Your task to perform on an android device: turn on the 24-hour format for clock Image 0: 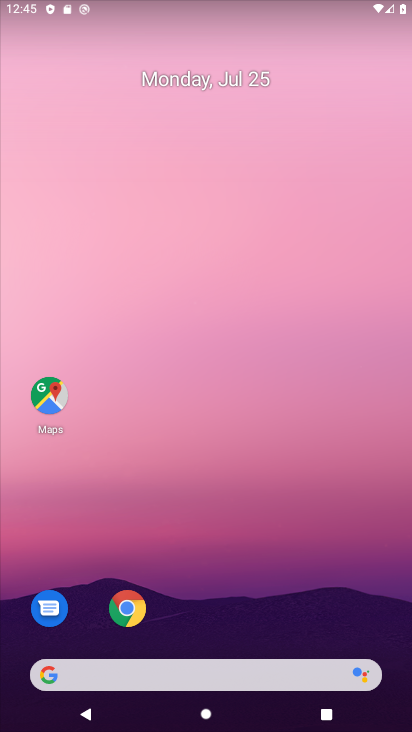
Step 0: drag from (200, 658) to (117, 66)
Your task to perform on an android device: turn on the 24-hour format for clock Image 1: 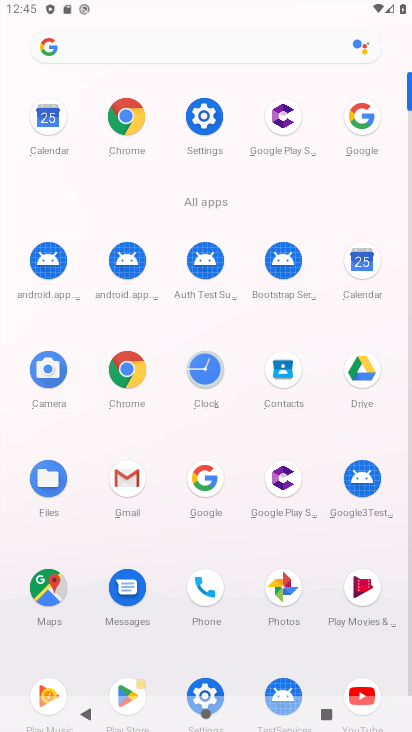
Step 1: click (205, 350)
Your task to perform on an android device: turn on the 24-hour format for clock Image 2: 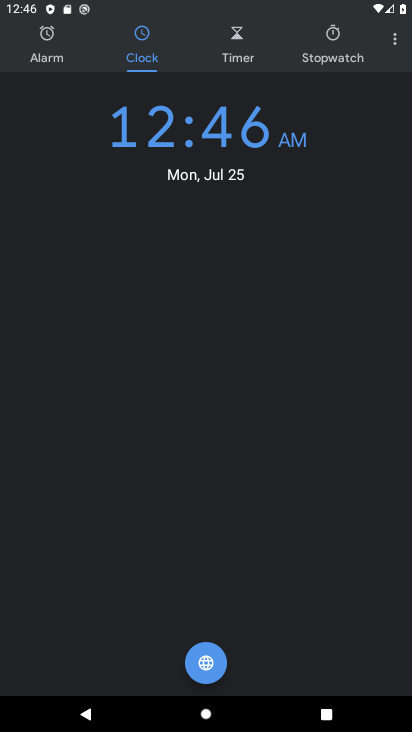
Step 2: click (390, 37)
Your task to perform on an android device: turn on the 24-hour format for clock Image 3: 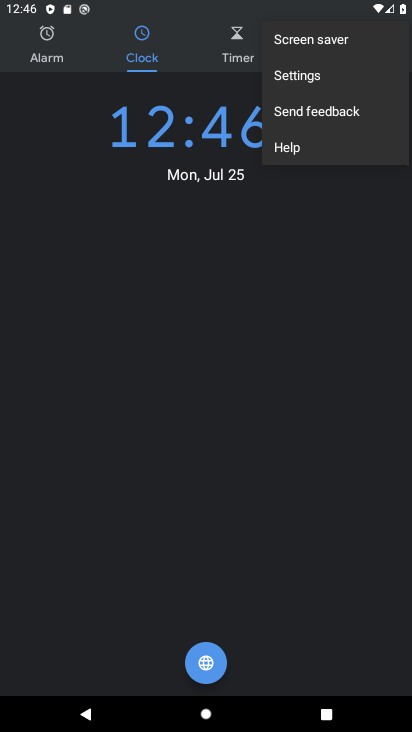
Step 3: click (295, 73)
Your task to perform on an android device: turn on the 24-hour format for clock Image 4: 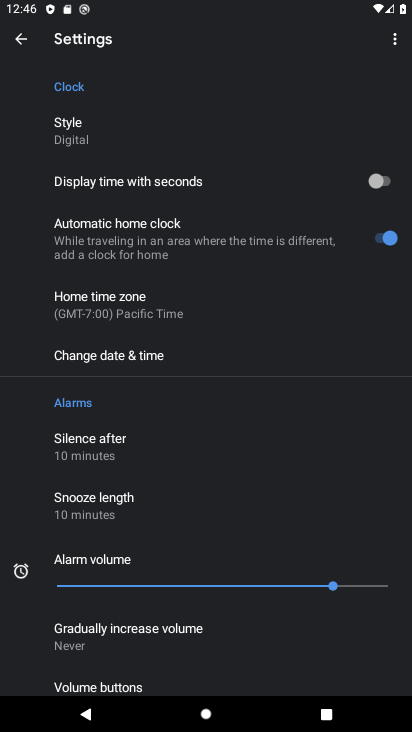
Step 4: drag from (161, 594) to (138, 339)
Your task to perform on an android device: turn on the 24-hour format for clock Image 5: 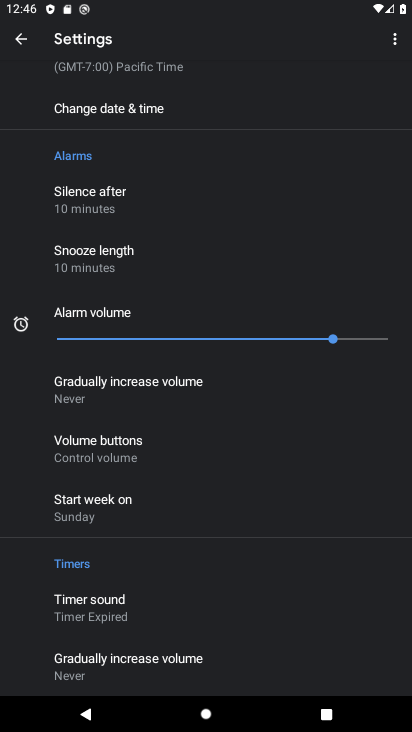
Step 5: click (101, 113)
Your task to perform on an android device: turn on the 24-hour format for clock Image 6: 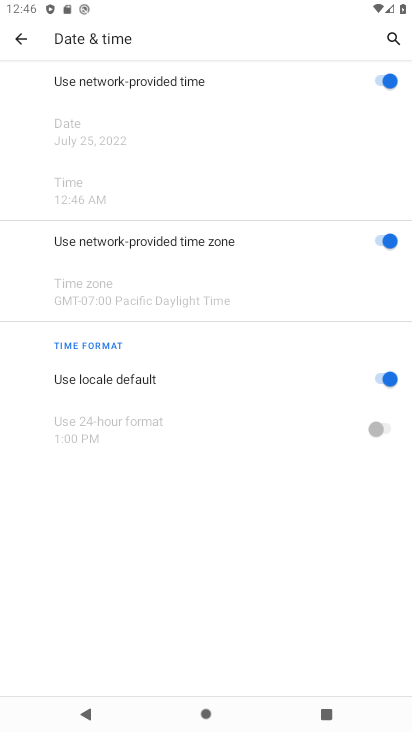
Step 6: click (368, 427)
Your task to perform on an android device: turn on the 24-hour format for clock Image 7: 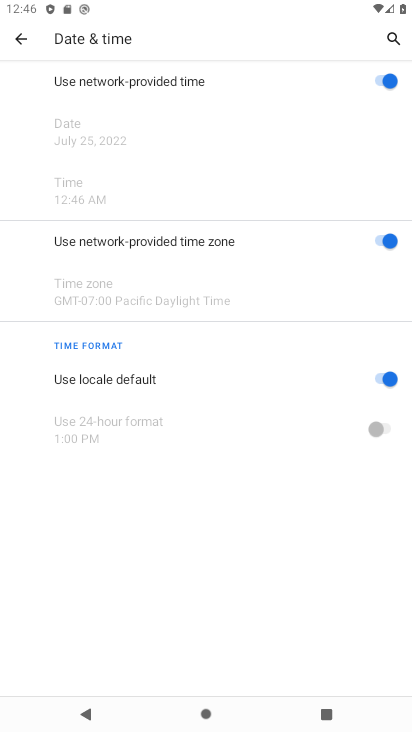
Step 7: click (393, 388)
Your task to perform on an android device: turn on the 24-hour format for clock Image 8: 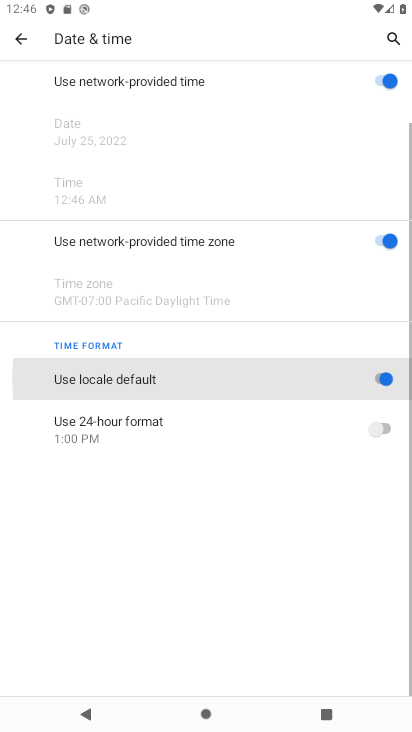
Step 8: click (381, 425)
Your task to perform on an android device: turn on the 24-hour format for clock Image 9: 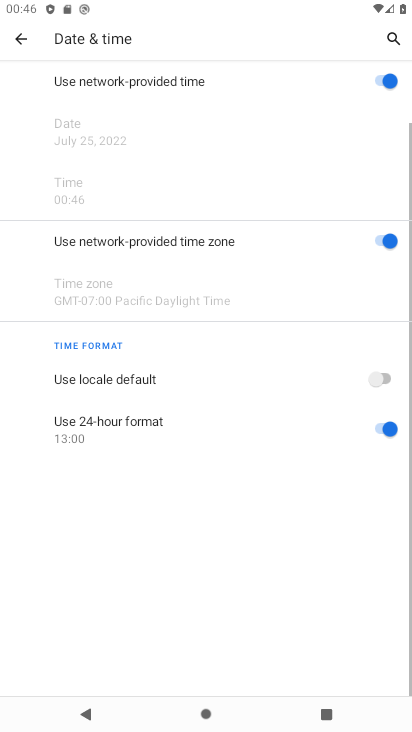
Step 9: task complete